Your task to perform on an android device: Open Google Maps and go to "Timeline" Image 0: 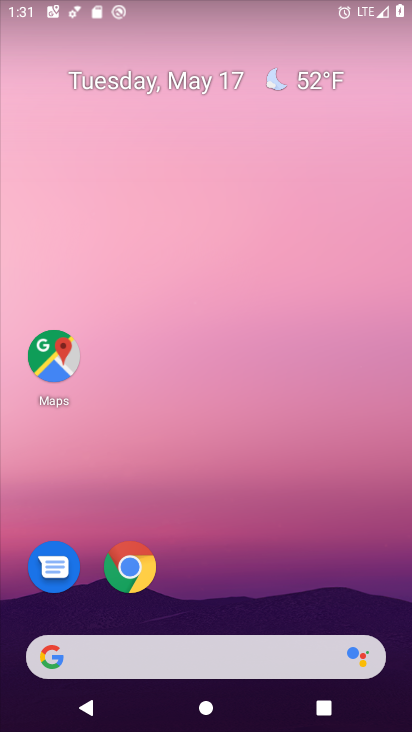
Step 0: drag from (238, 586) to (261, 46)
Your task to perform on an android device: Open Google Maps and go to "Timeline" Image 1: 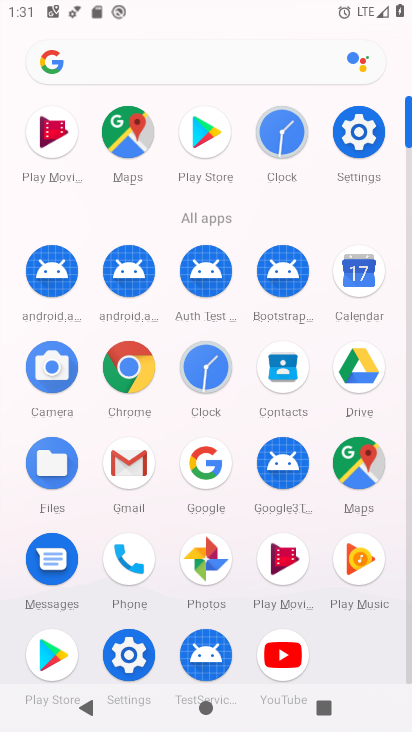
Step 1: click (361, 459)
Your task to perform on an android device: Open Google Maps and go to "Timeline" Image 2: 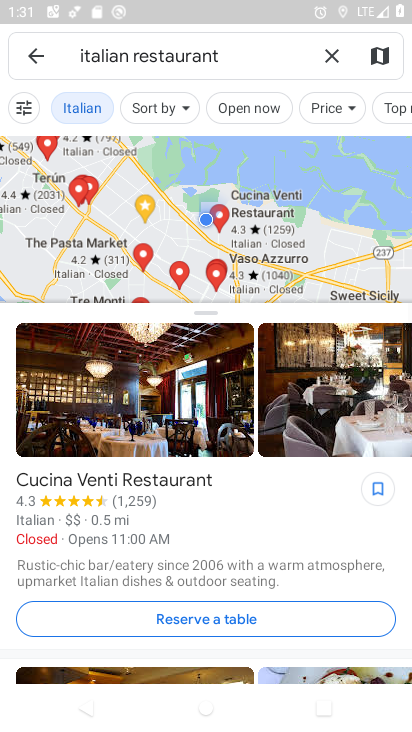
Step 2: click (28, 64)
Your task to perform on an android device: Open Google Maps and go to "Timeline" Image 3: 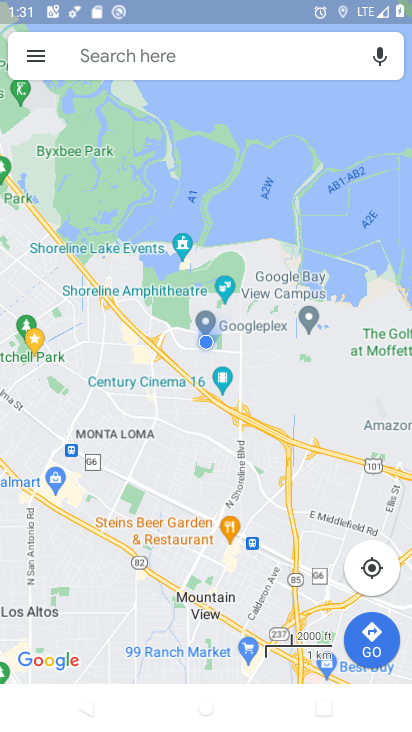
Step 3: click (41, 61)
Your task to perform on an android device: Open Google Maps and go to "Timeline" Image 4: 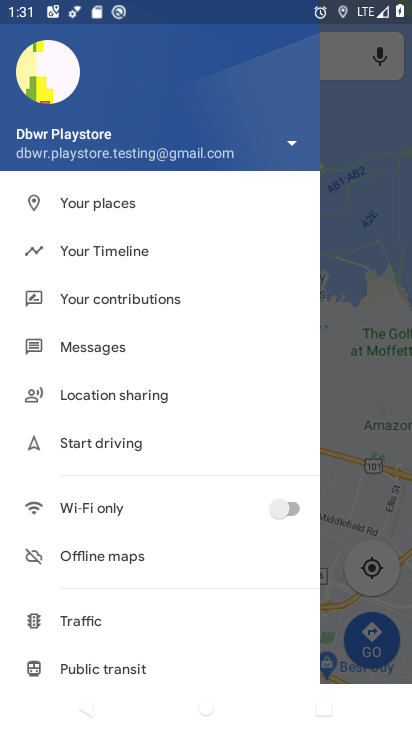
Step 4: click (93, 260)
Your task to perform on an android device: Open Google Maps and go to "Timeline" Image 5: 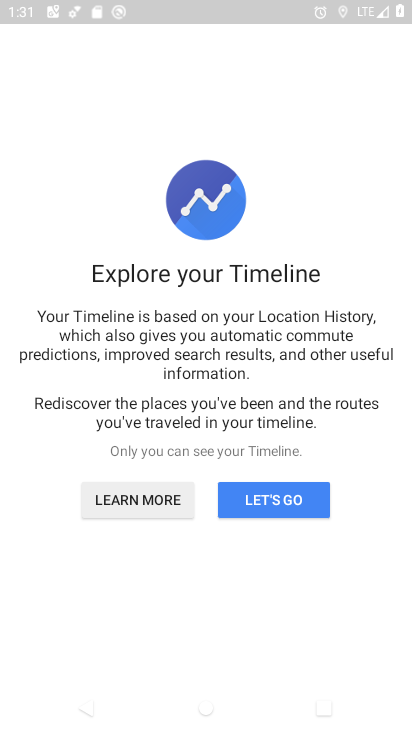
Step 5: click (256, 504)
Your task to perform on an android device: Open Google Maps and go to "Timeline" Image 6: 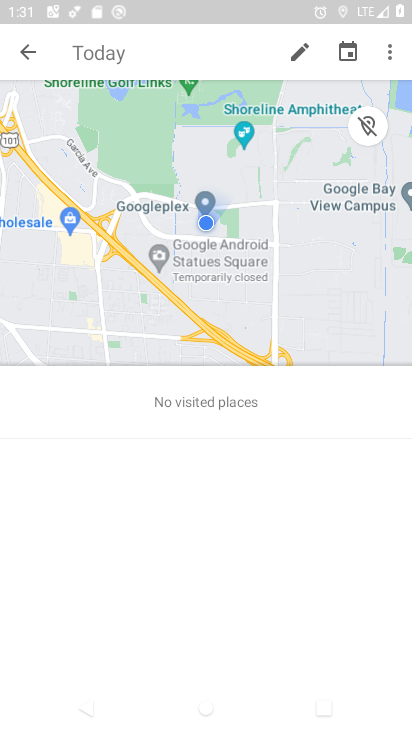
Step 6: task complete